Your task to perform on an android device: Is it going to rain today? Image 0: 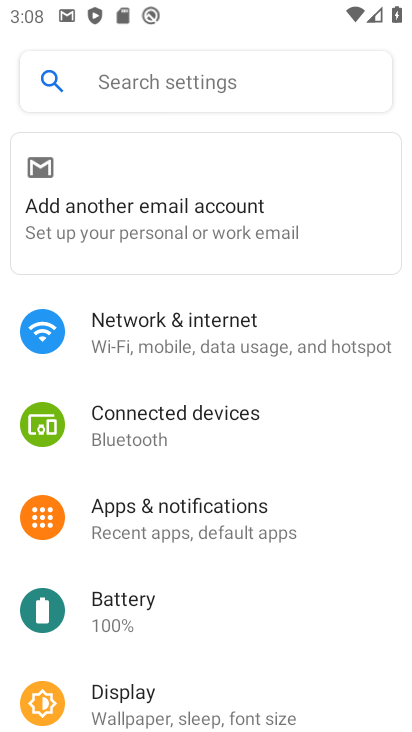
Step 0: press home button
Your task to perform on an android device: Is it going to rain today? Image 1: 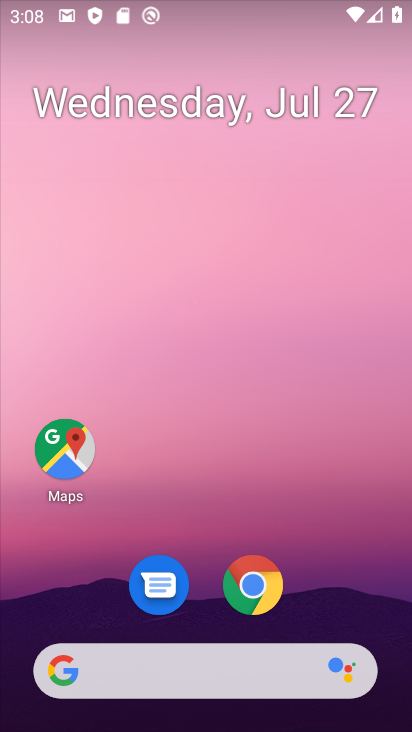
Step 1: click (206, 689)
Your task to perform on an android device: Is it going to rain today? Image 2: 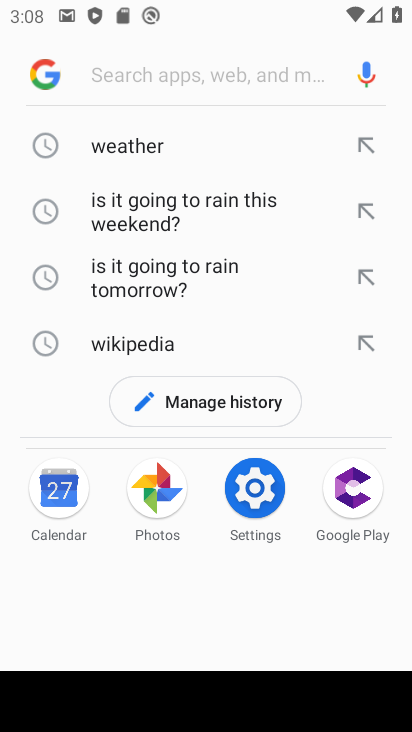
Step 2: click (138, 145)
Your task to perform on an android device: Is it going to rain today? Image 3: 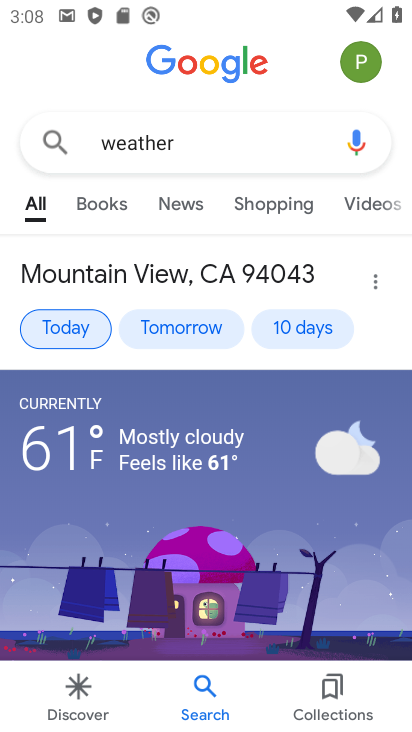
Step 3: click (76, 326)
Your task to perform on an android device: Is it going to rain today? Image 4: 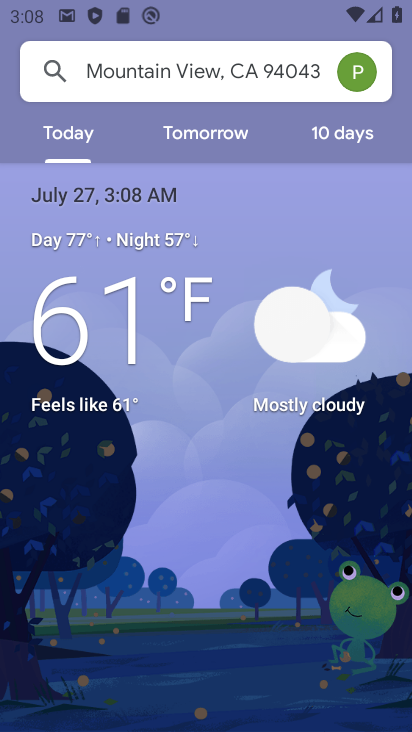
Step 4: task complete